Your task to perform on an android device: check data usage Image 0: 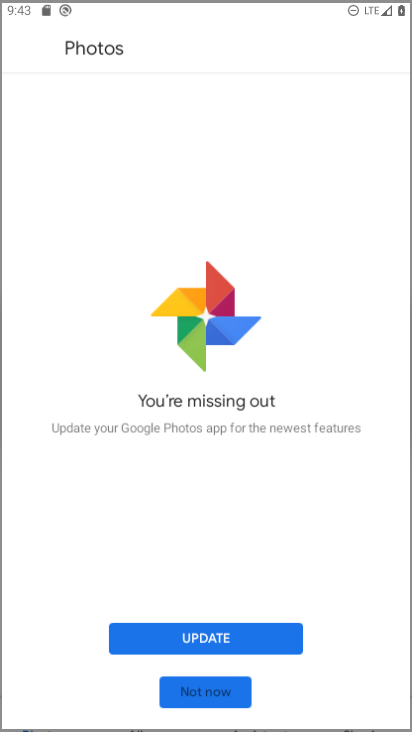
Step 0: press home button
Your task to perform on an android device: check data usage Image 1: 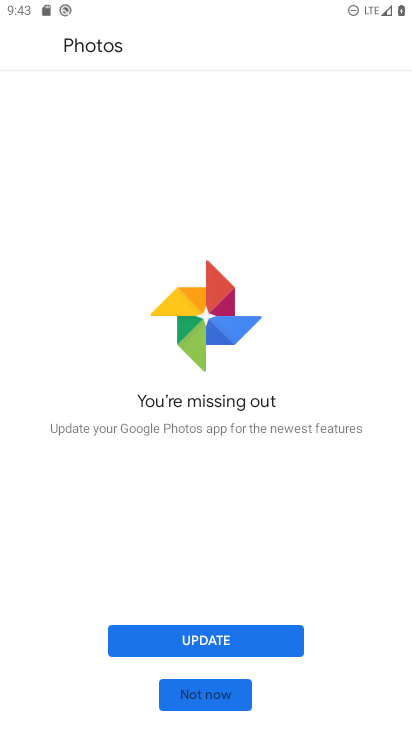
Step 1: drag from (340, 647) to (228, 103)
Your task to perform on an android device: check data usage Image 2: 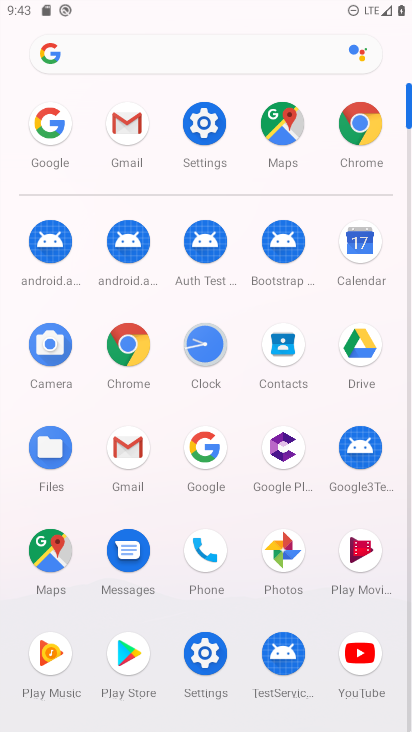
Step 2: click (188, 115)
Your task to perform on an android device: check data usage Image 3: 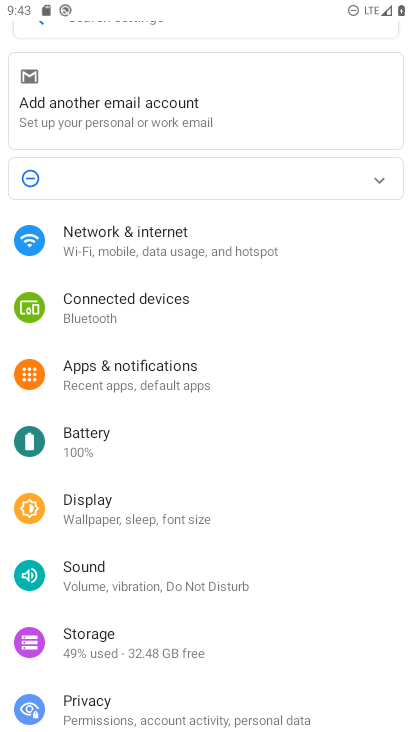
Step 3: click (194, 235)
Your task to perform on an android device: check data usage Image 4: 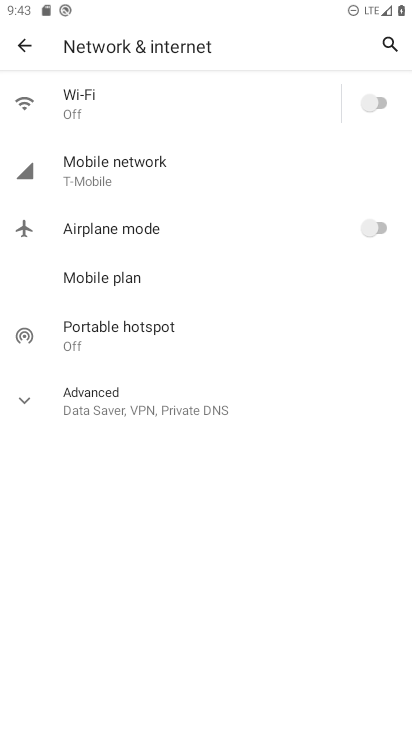
Step 4: click (95, 179)
Your task to perform on an android device: check data usage Image 5: 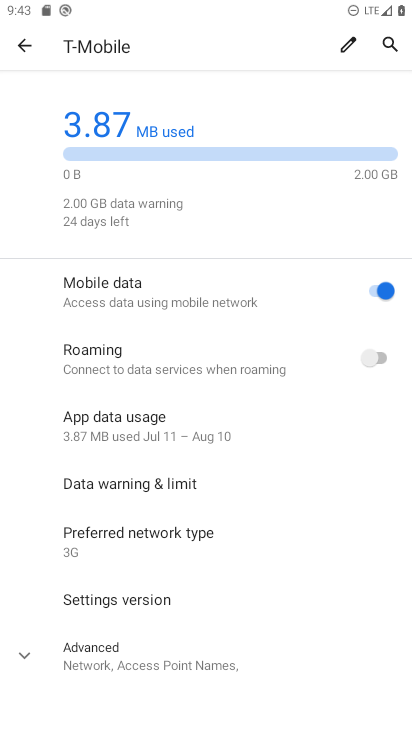
Step 5: click (156, 431)
Your task to perform on an android device: check data usage Image 6: 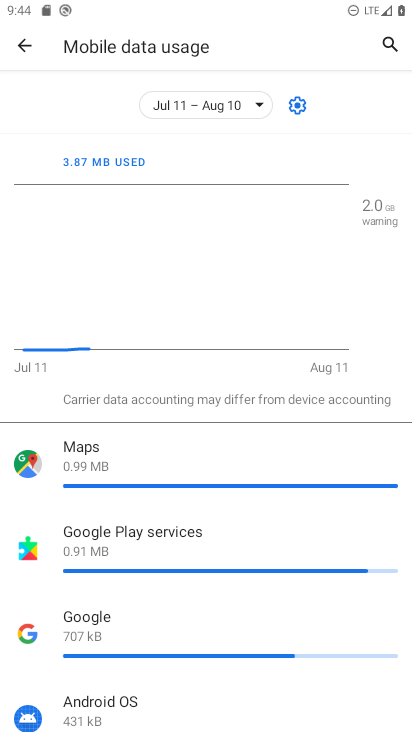
Step 6: task complete